Your task to perform on an android device: Play the last video I watched on Youtube Image 0: 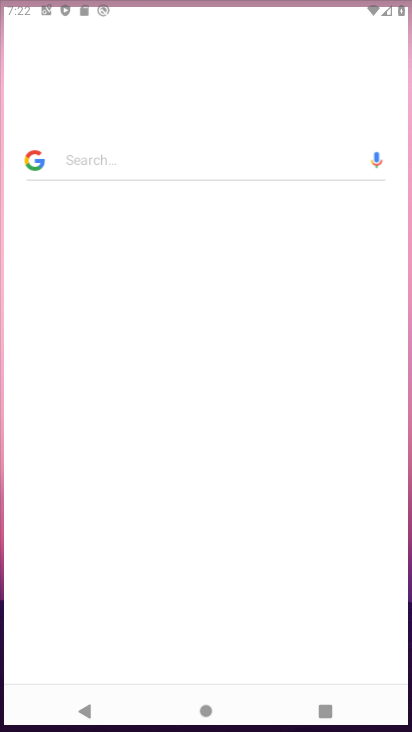
Step 0: drag from (378, 600) to (252, 100)
Your task to perform on an android device: Play the last video I watched on Youtube Image 1: 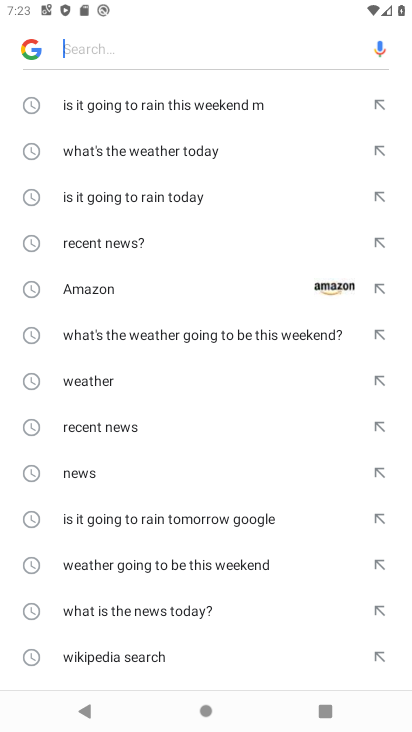
Step 1: press home button
Your task to perform on an android device: Play the last video I watched on Youtube Image 2: 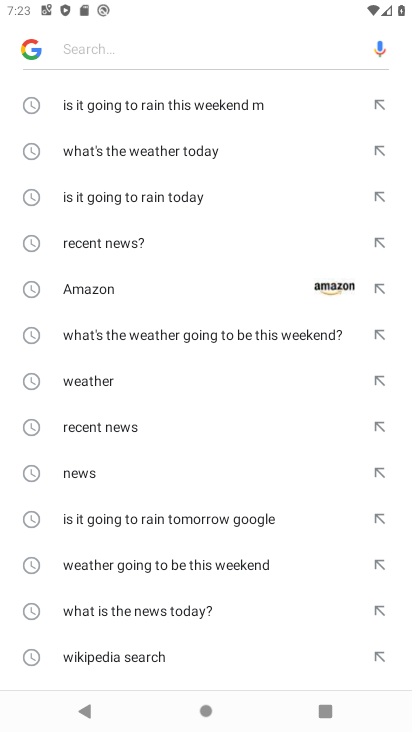
Step 2: drag from (336, 641) to (173, 35)
Your task to perform on an android device: Play the last video I watched on Youtube Image 3: 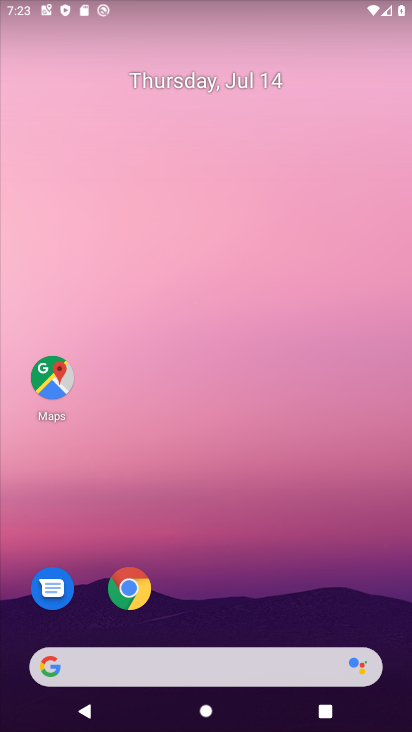
Step 3: drag from (395, 622) to (329, 80)
Your task to perform on an android device: Play the last video I watched on Youtube Image 4: 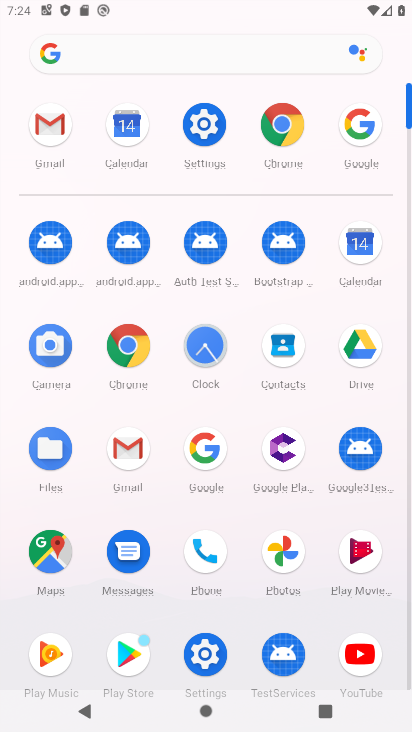
Step 4: click (374, 684)
Your task to perform on an android device: Play the last video I watched on Youtube Image 5: 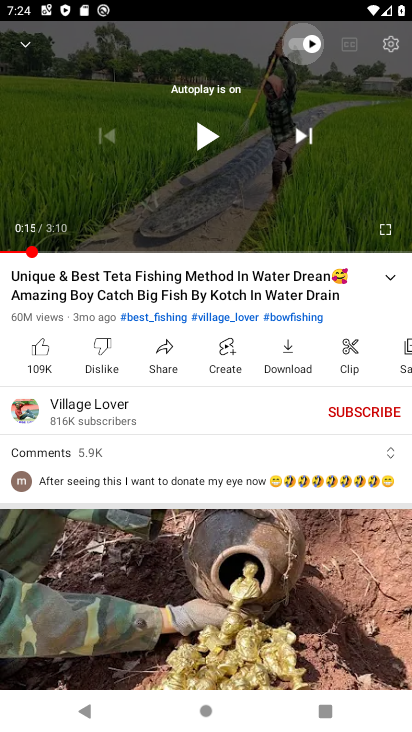
Step 5: click (205, 135)
Your task to perform on an android device: Play the last video I watched on Youtube Image 6: 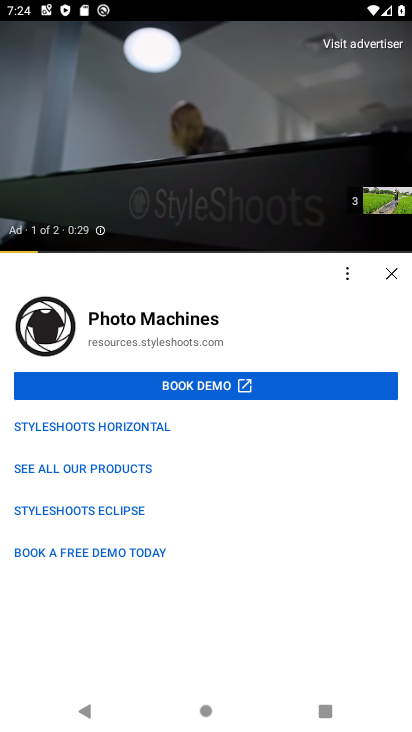
Step 6: click (210, 128)
Your task to perform on an android device: Play the last video I watched on Youtube Image 7: 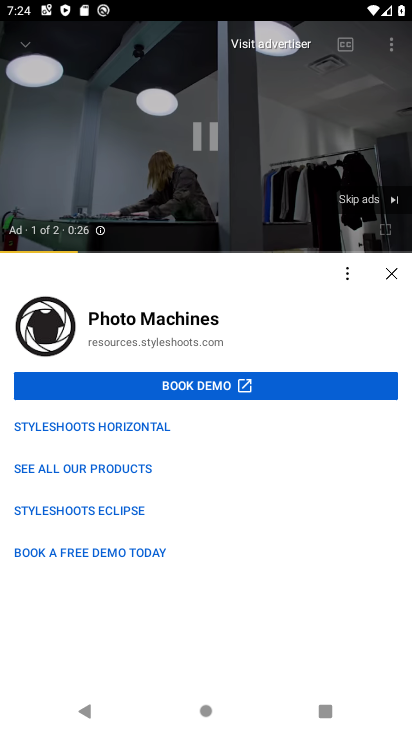
Step 7: click (361, 203)
Your task to perform on an android device: Play the last video I watched on Youtube Image 8: 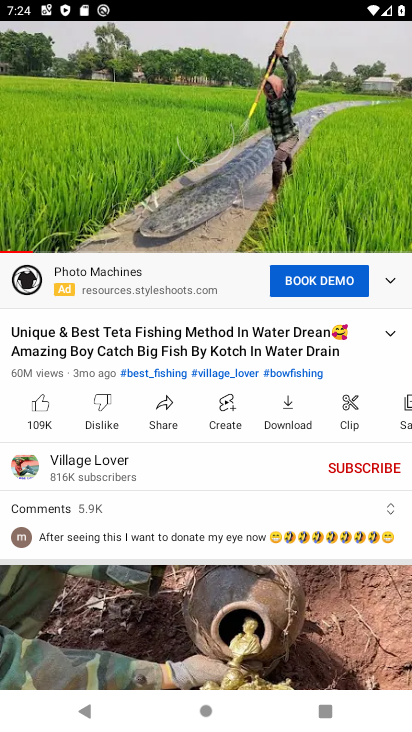
Step 8: click (191, 127)
Your task to perform on an android device: Play the last video I watched on Youtube Image 9: 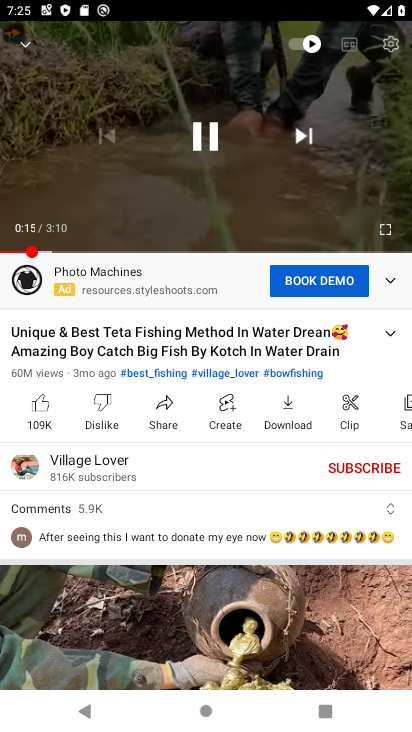
Step 9: click (193, 129)
Your task to perform on an android device: Play the last video I watched on Youtube Image 10: 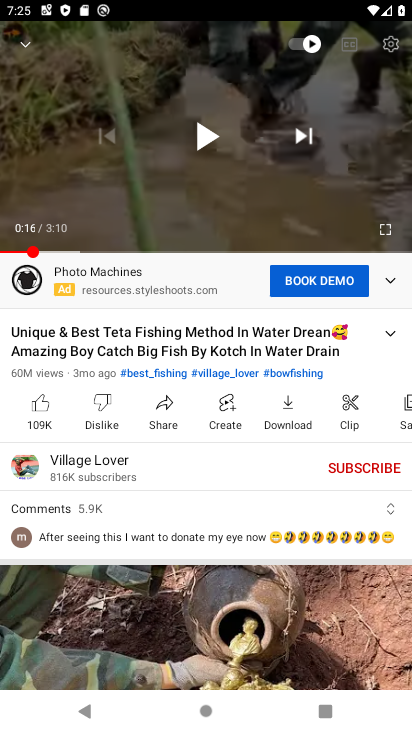
Step 10: task complete